Your task to perform on an android device: turn pop-ups off in chrome Image 0: 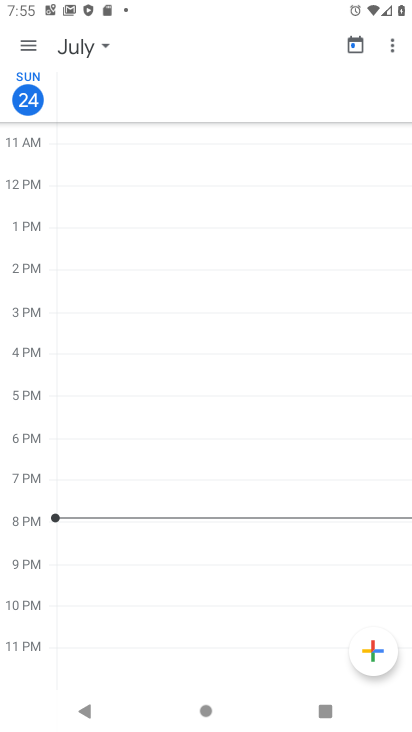
Step 0: press home button
Your task to perform on an android device: turn pop-ups off in chrome Image 1: 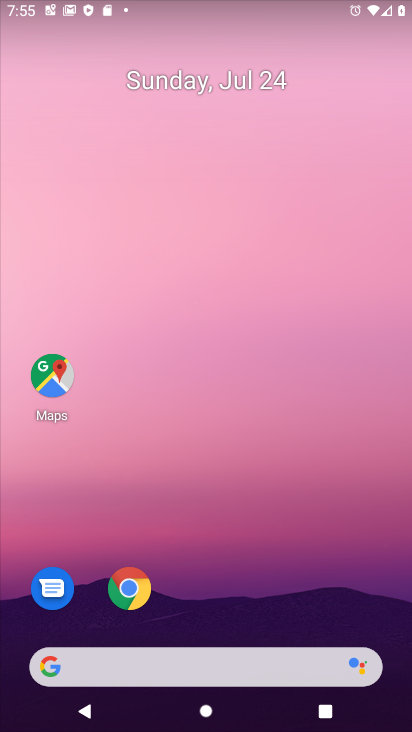
Step 1: drag from (257, 513) to (37, 6)
Your task to perform on an android device: turn pop-ups off in chrome Image 2: 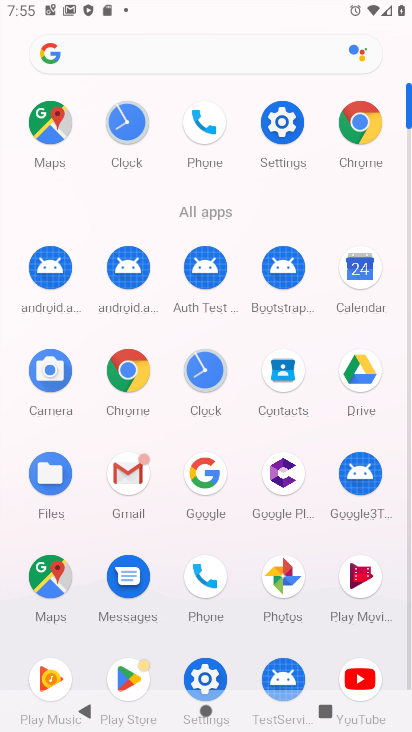
Step 2: click (370, 120)
Your task to perform on an android device: turn pop-ups off in chrome Image 3: 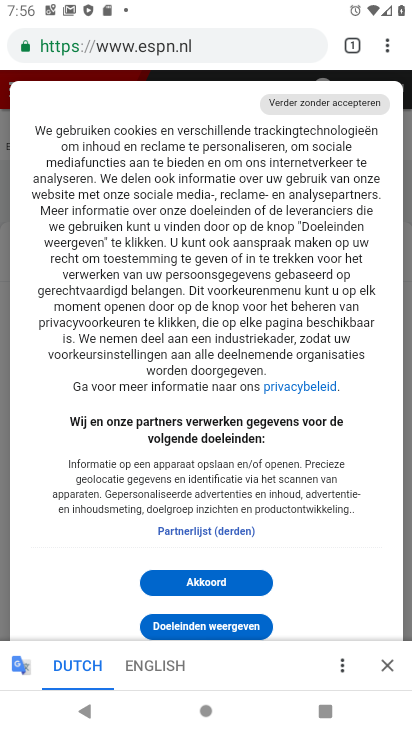
Step 3: drag from (391, 31) to (235, 543)
Your task to perform on an android device: turn pop-ups off in chrome Image 4: 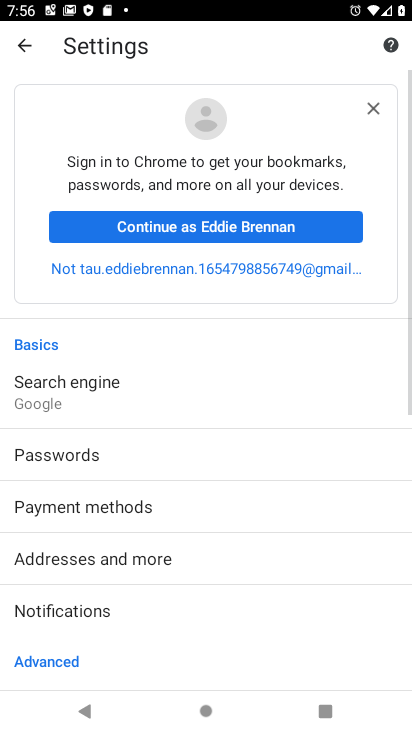
Step 4: drag from (199, 551) to (283, 140)
Your task to perform on an android device: turn pop-ups off in chrome Image 5: 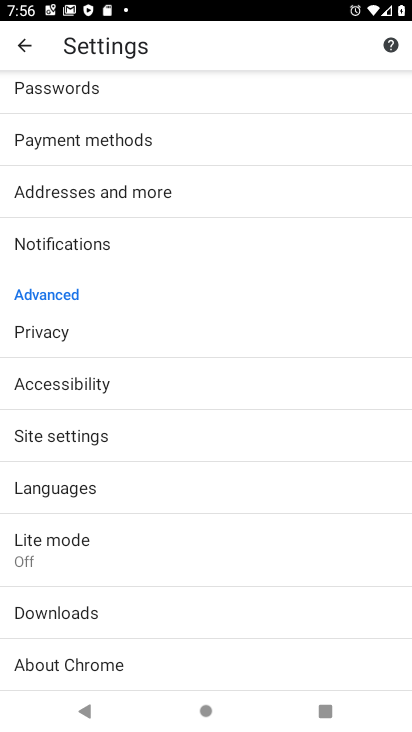
Step 5: click (33, 441)
Your task to perform on an android device: turn pop-ups off in chrome Image 6: 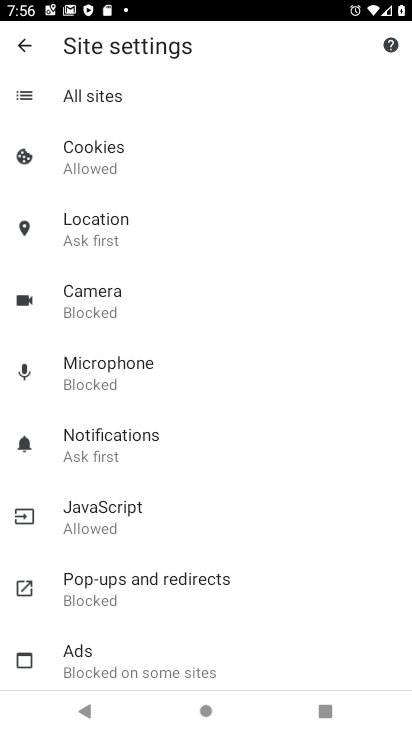
Step 6: click (82, 584)
Your task to perform on an android device: turn pop-ups off in chrome Image 7: 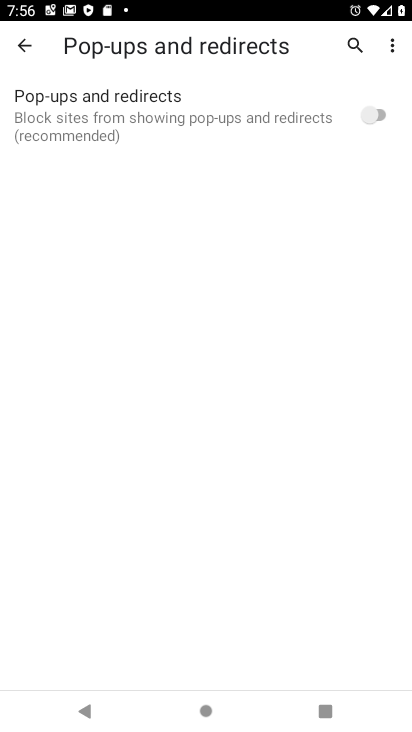
Step 7: task complete